Your task to perform on an android device: clear history in the chrome app Image 0: 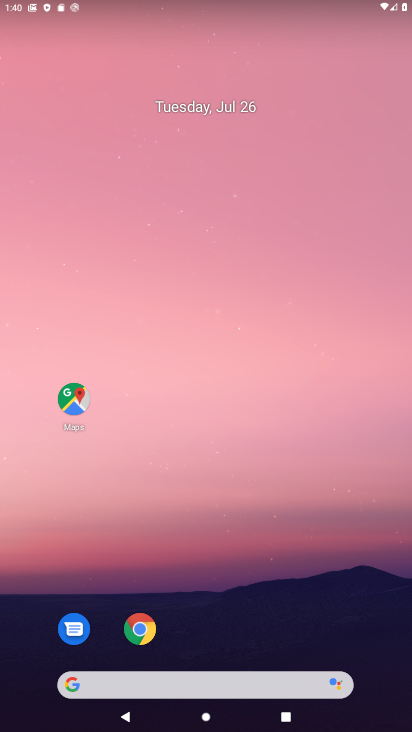
Step 0: drag from (206, 673) to (218, 138)
Your task to perform on an android device: clear history in the chrome app Image 1: 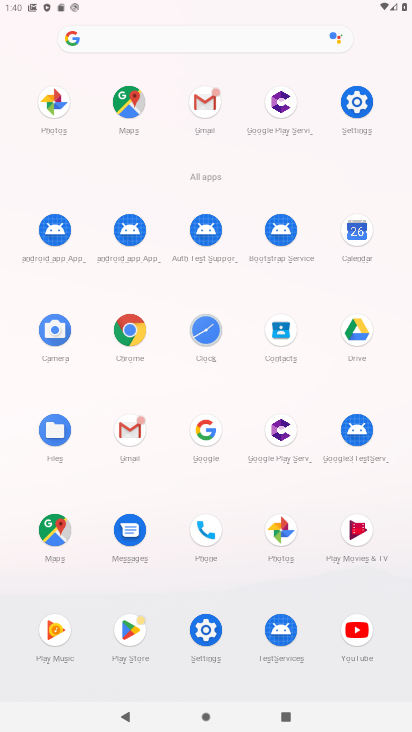
Step 1: click (122, 324)
Your task to perform on an android device: clear history in the chrome app Image 2: 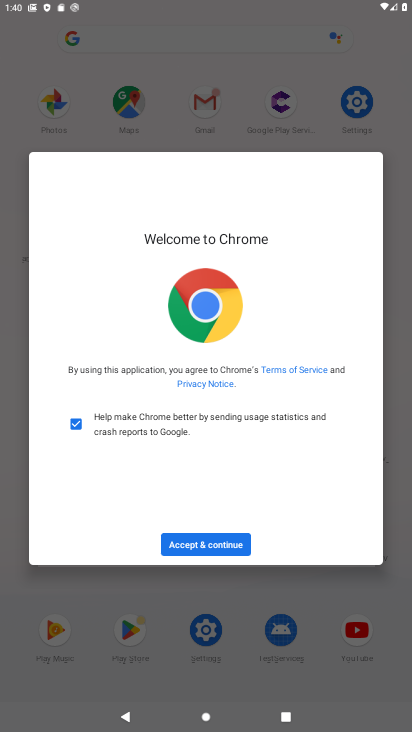
Step 2: click (222, 540)
Your task to perform on an android device: clear history in the chrome app Image 3: 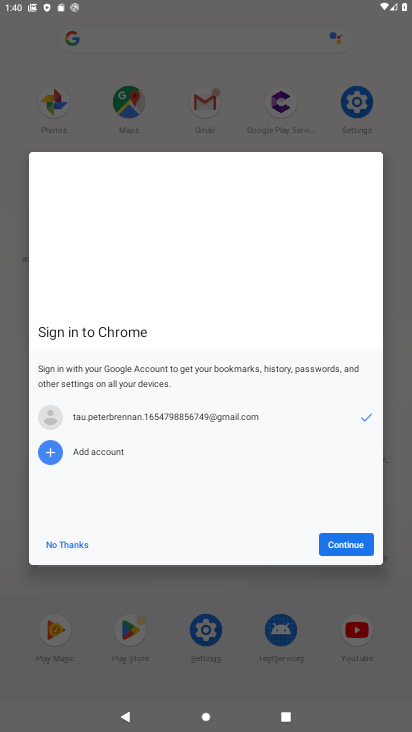
Step 3: click (339, 542)
Your task to perform on an android device: clear history in the chrome app Image 4: 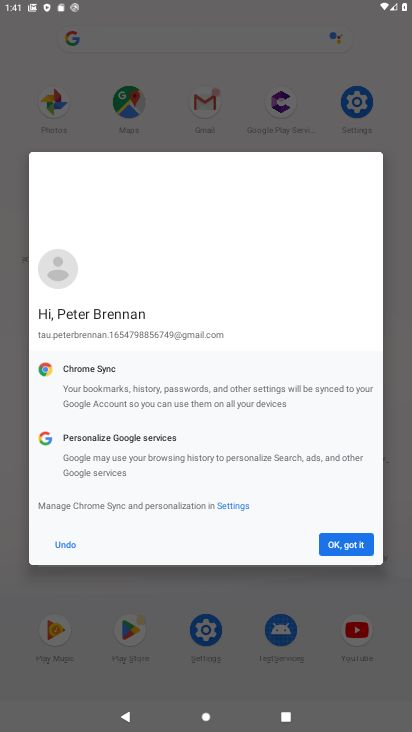
Step 4: click (340, 543)
Your task to perform on an android device: clear history in the chrome app Image 5: 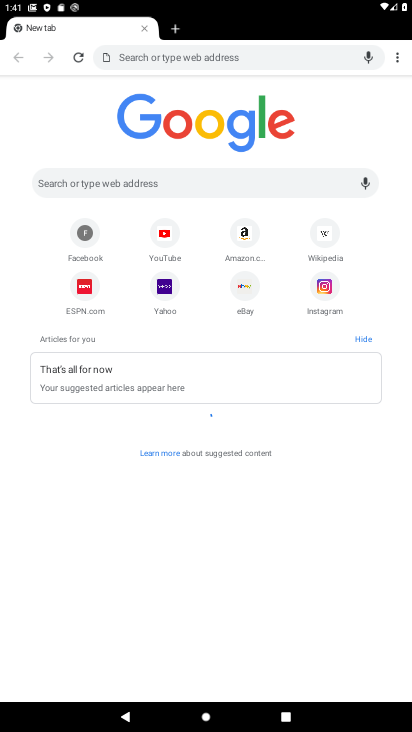
Step 5: click (393, 56)
Your task to perform on an android device: clear history in the chrome app Image 6: 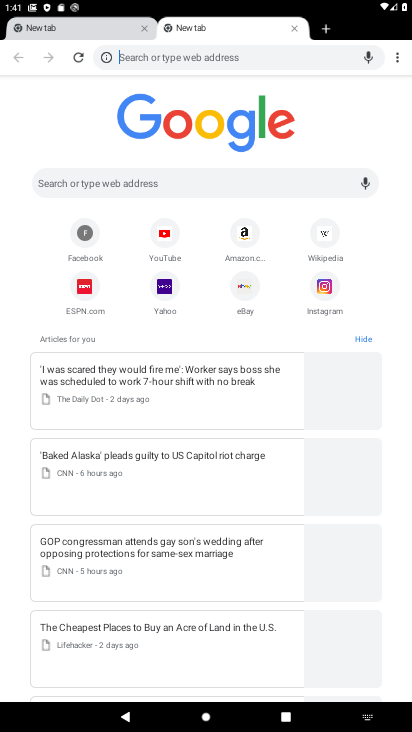
Step 6: click (396, 56)
Your task to perform on an android device: clear history in the chrome app Image 7: 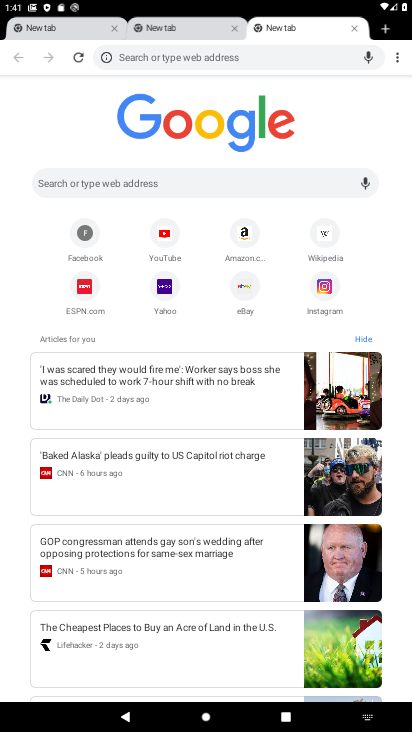
Step 7: click (396, 56)
Your task to perform on an android device: clear history in the chrome app Image 8: 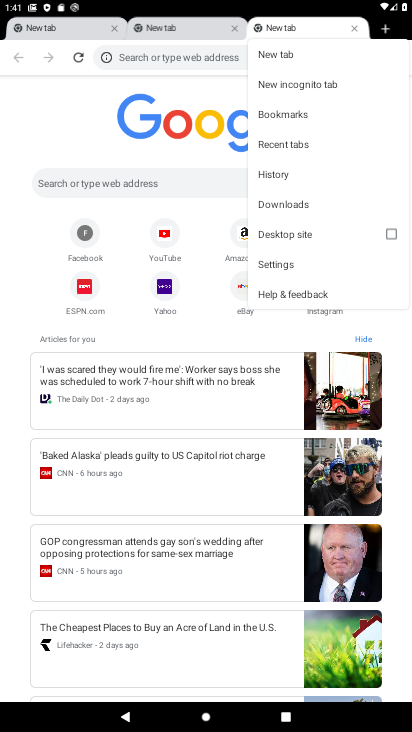
Step 8: click (267, 176)
Your task to perform on an android device: clear history in the chrome app Image 9: 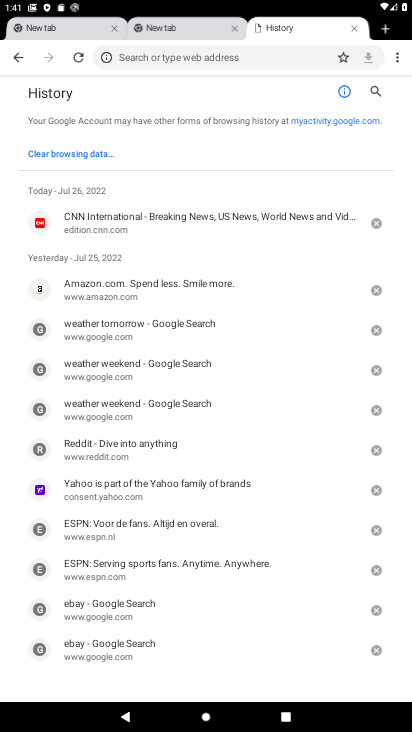
Step 9: click (80, 151)
Your task to perform on an android device: clear history in the chrome app Image 10: 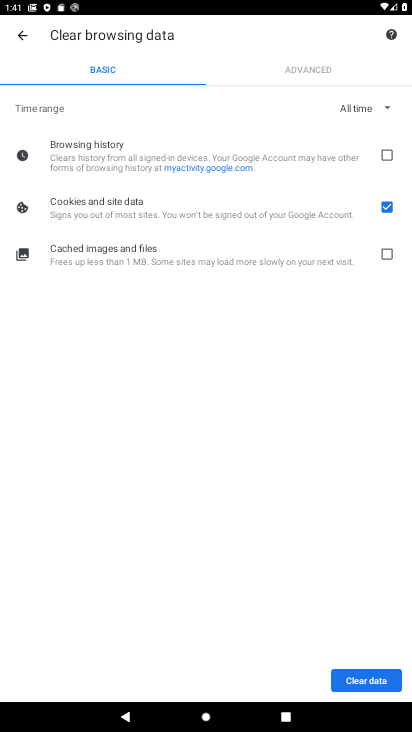
Step 10: click (384, 252)
Your task to perform on an android device: clear history in the chrome app Image 11: 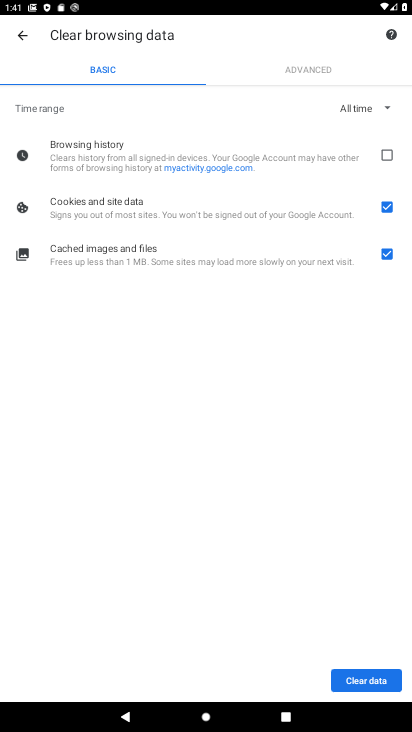
Step 11: click (382, 152)
Your task to perform on an android device: clear history in the chrome app Image 12: 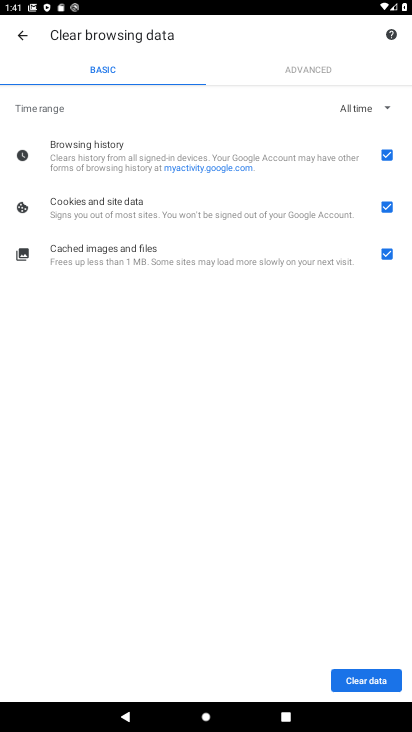
Step 12: click (386, 678)
Your task to perform on an android device: clear history in the chrome app Image 13: 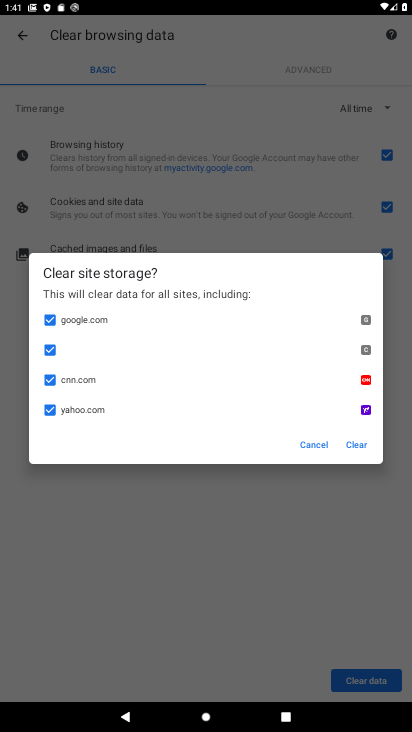
Step 13: click (351, 444)
Your task to perform on an android device: clear history in the chrome app Image 14: 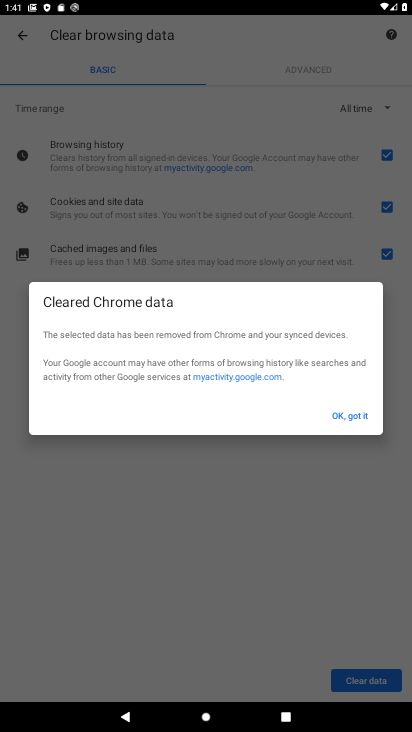
Step 14: click (356, 416)
Your task to perform on an android device: clear history in the chrome app Image 15: 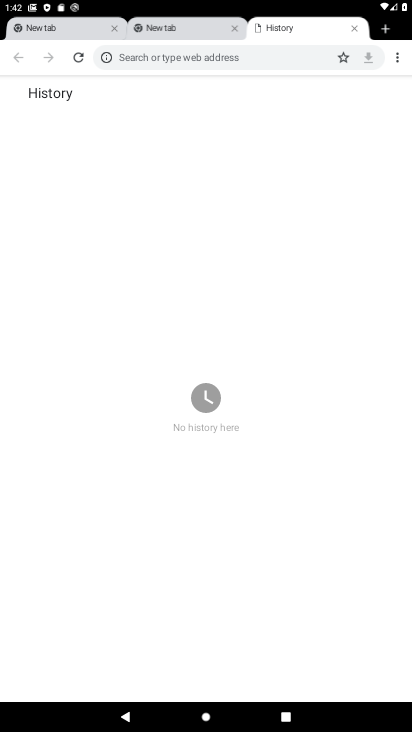
Step 15: task complete